Your task to perform on an android device: turn pop-ups off in chrome Image 0: 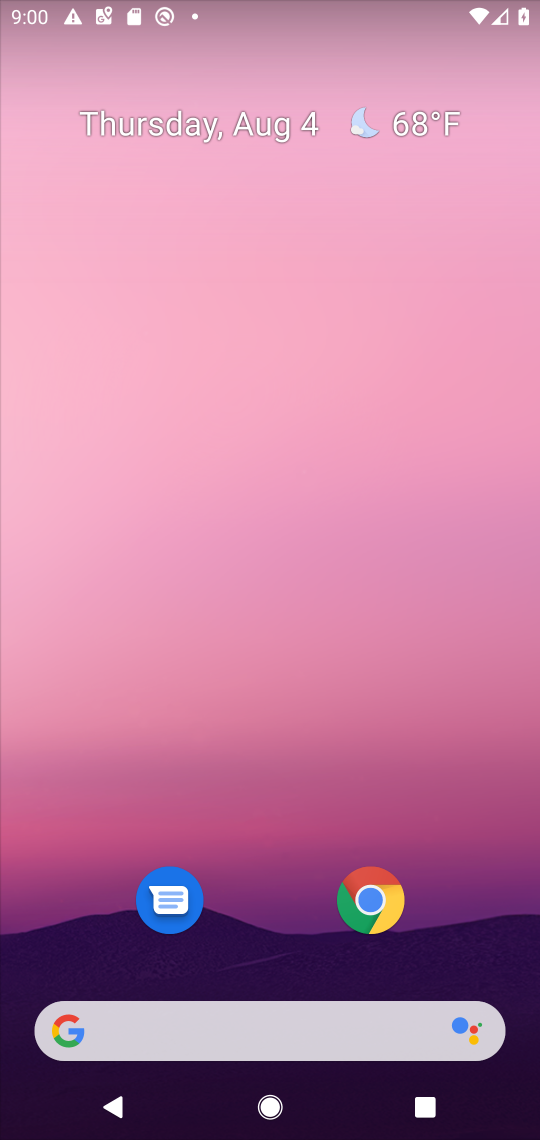
Step 0: click (385, 908)
Your task to perform on an android device: turn pop-ups off in chrome Image 1: 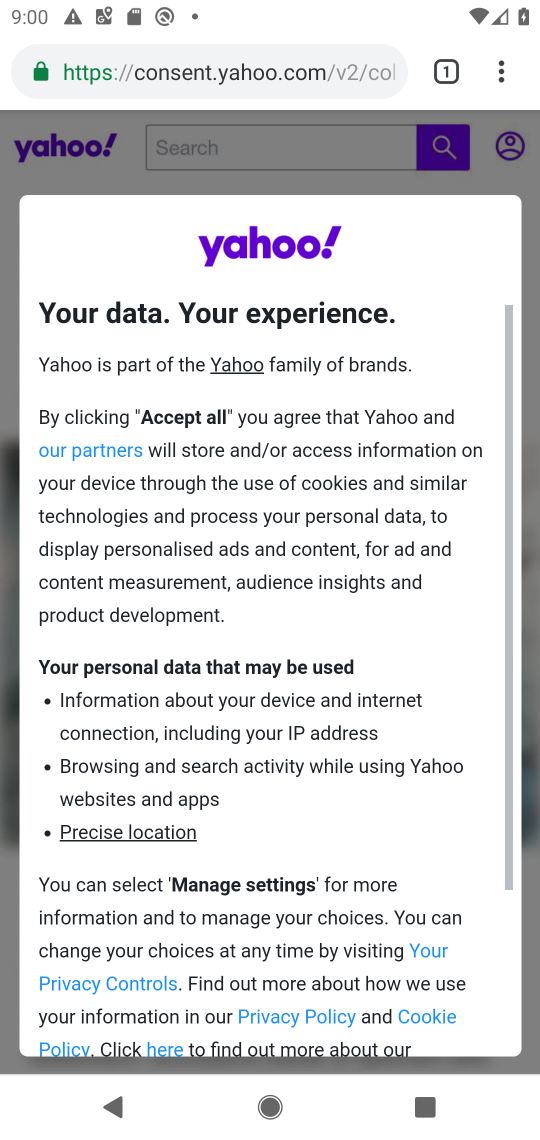
Step 1: click (501, 73)
Your task to perform on an android device: turn pop-ups off in chrome Image 2: 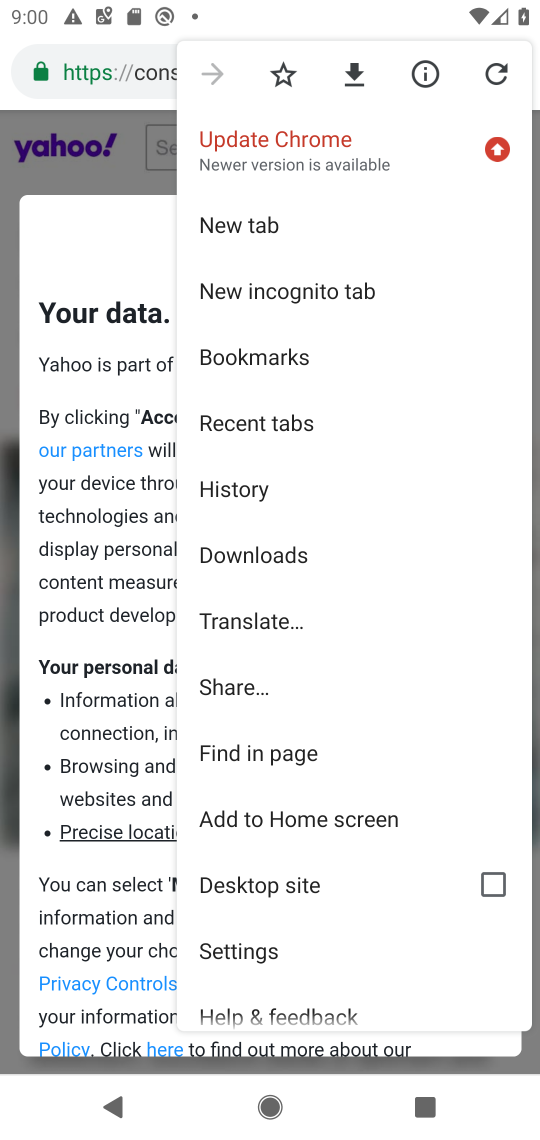
Step 2: click (237, 960)
Your task to perform on an android device: turn pop-ups off in chrome Image 3: 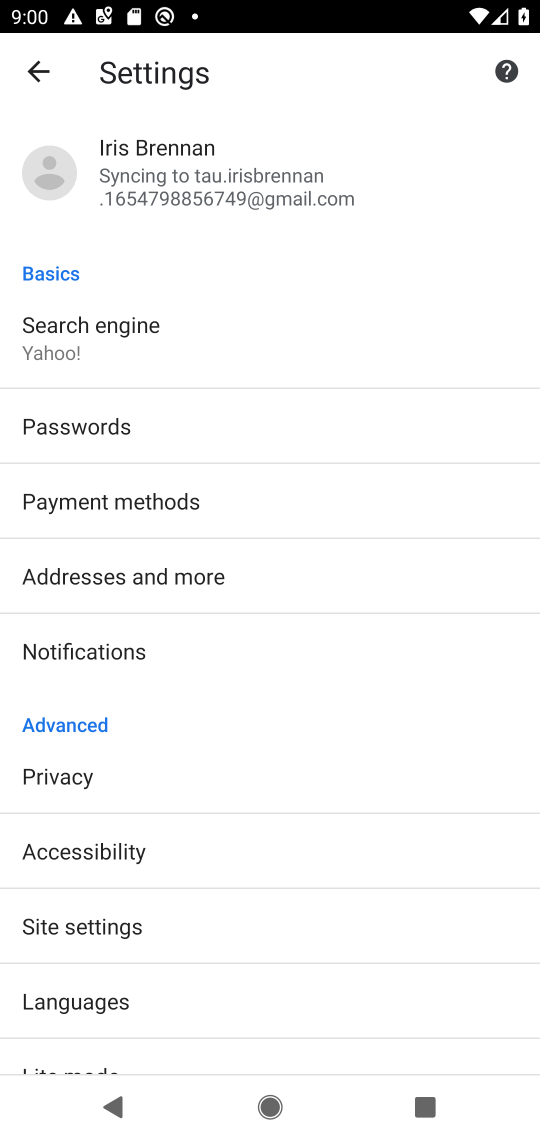
Step 3: click (109, 935)
Your task to perform on an android device: turn pop-ups off in chrome Image 4: 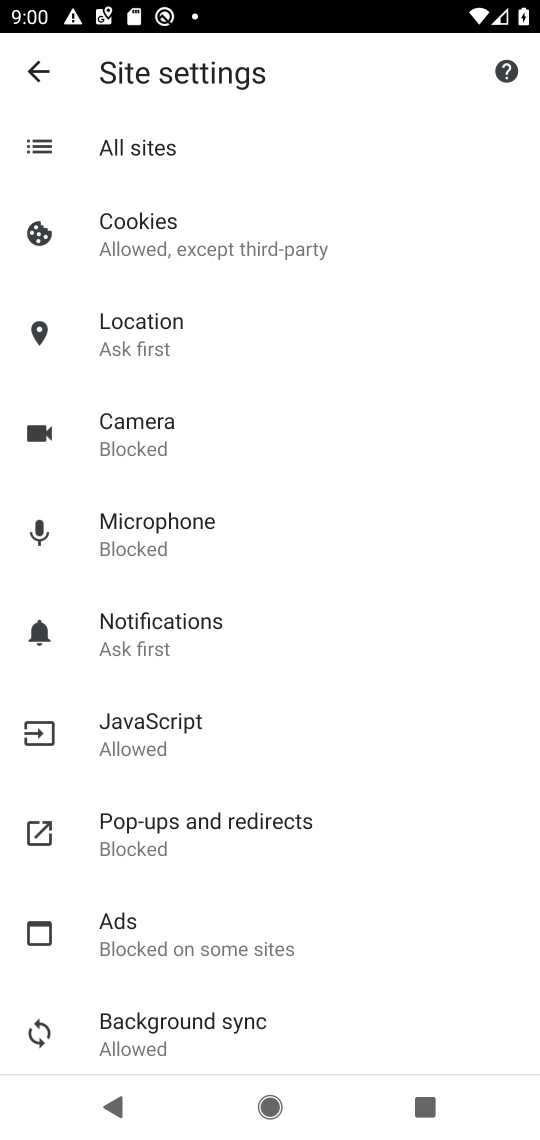
Step 4: click (132, 851)
Your task to perform on an android device: turn pop-ups off in chrome Image 5: 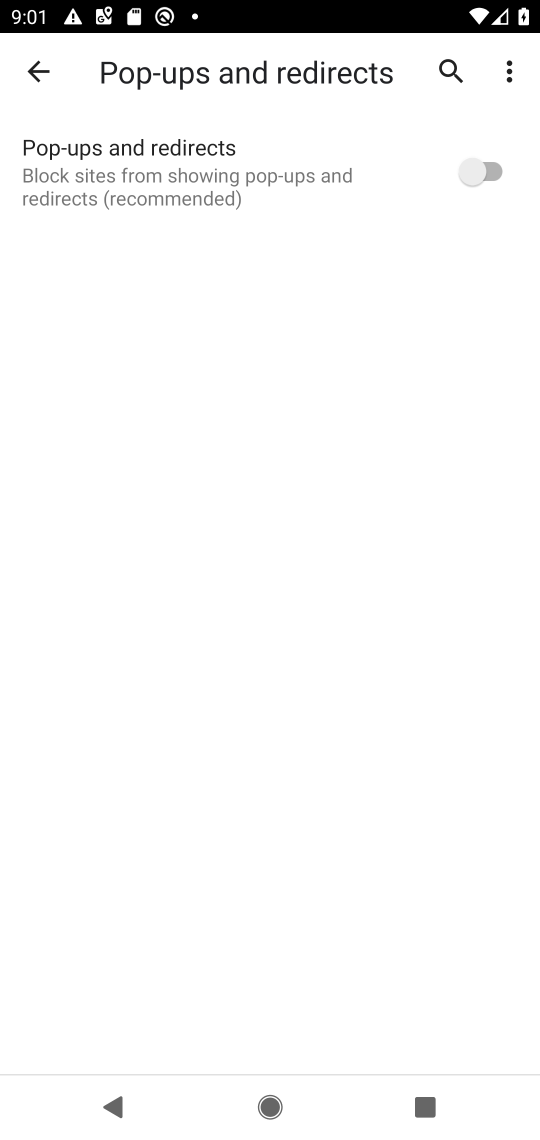
Step 5: task complete